Your task to perform on an android device: Go to calendar. Show me events next week Image 0: 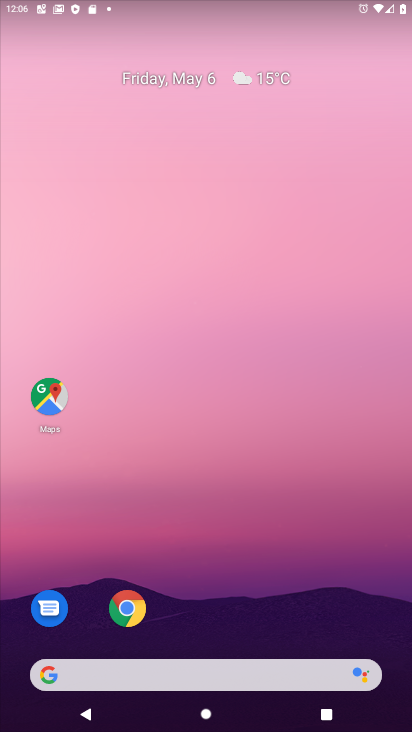
Step 0: drag from (259, 624) to (262, 249)
Your task to perform on an android device: Go to calendar. Show me events next week Image 1: 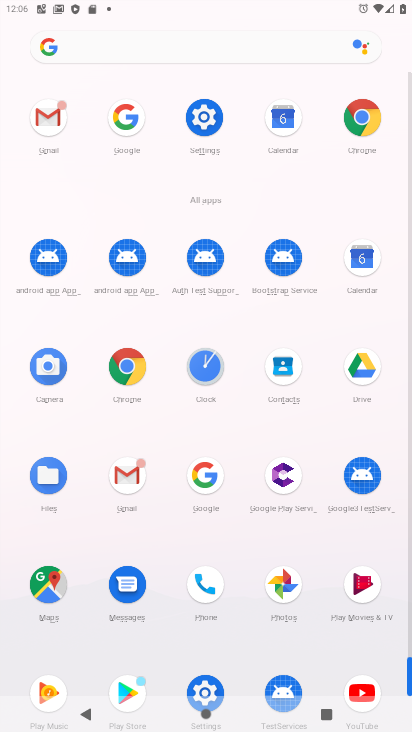
Step 1: click (354, 274)
Your task to perform on an android device: Go to calendar. Show me events next week Image 2: 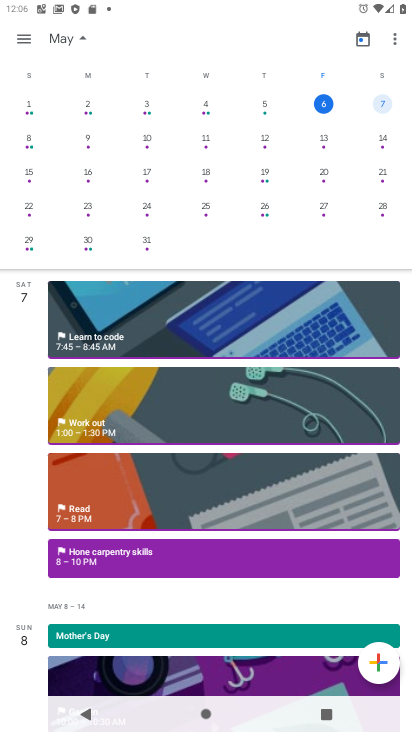
Step 2: click (29, 150)
Your task to perform on an android device: Go to calendar. Show me events next week Image 3: 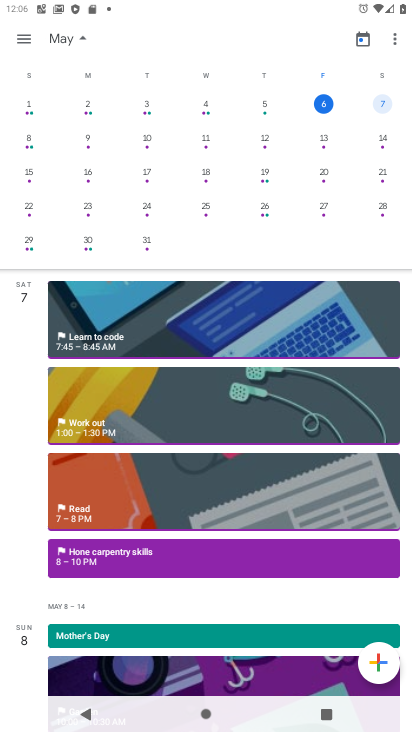
Step 3: click (87, 144)
Your task to perform on an android device: Go to calendar. Show me events next week Image 4: 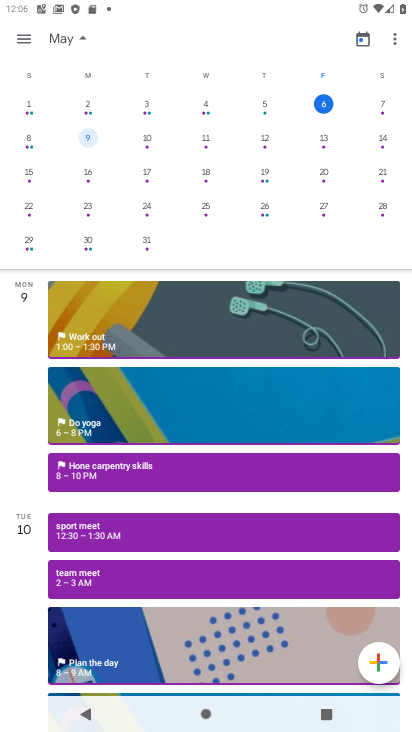
Step 4: click (146, 137)
Your task to perform on an android device: Go to calendar. Show me events next week Image 5: 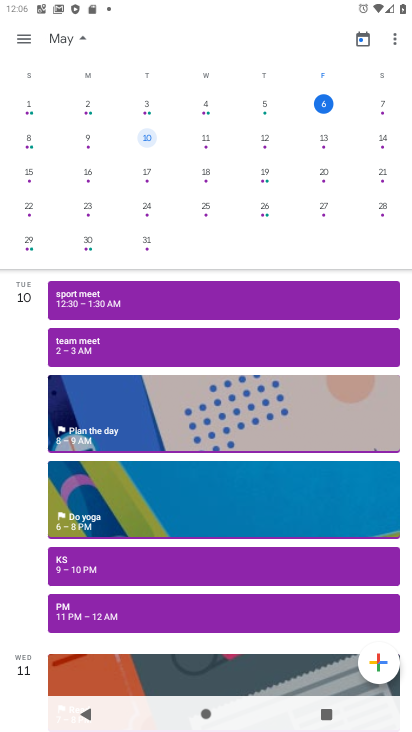
Step 5: click (210, 146)
Your task to perform on an android device: Go to calendar. Show me events next week Image 6: 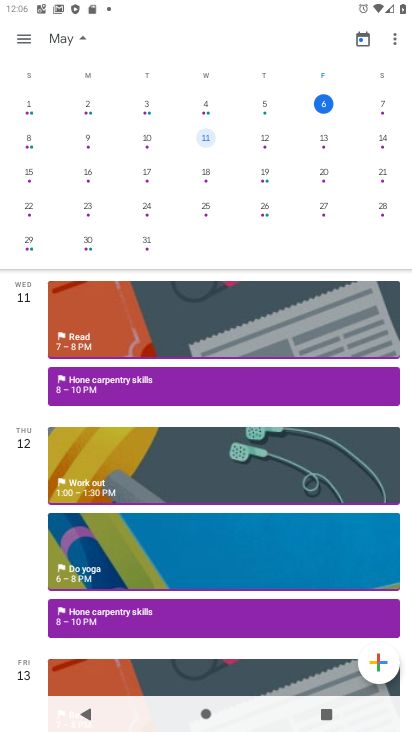
Step 6: click (260, 139)
Your task to perform on an android device: Go to calendar. Show me events next week Image 7: 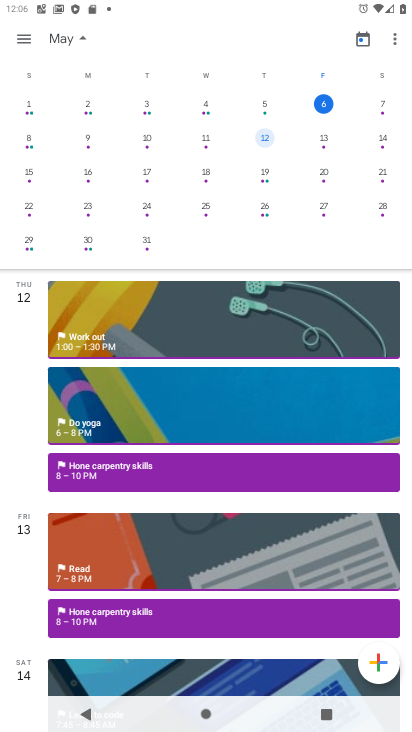
Step 7: click (321, 140)
Your task to perform on an android device: Go to calendar. Show me events next week Image 8: 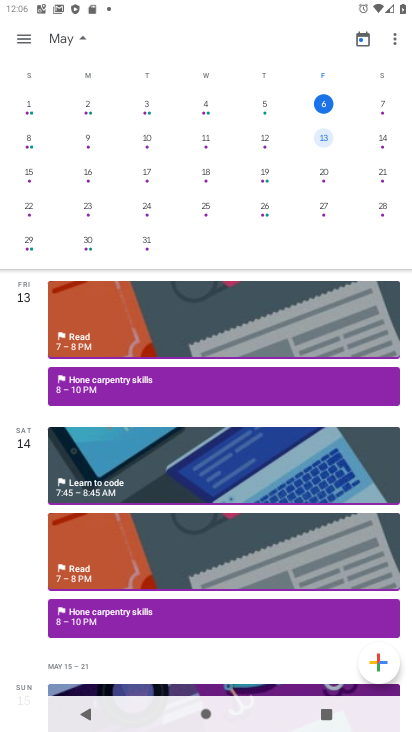
Step 8: click (382, 142)
Your task to perform on an android device: Go to calendar. Show me events next week Image 9: 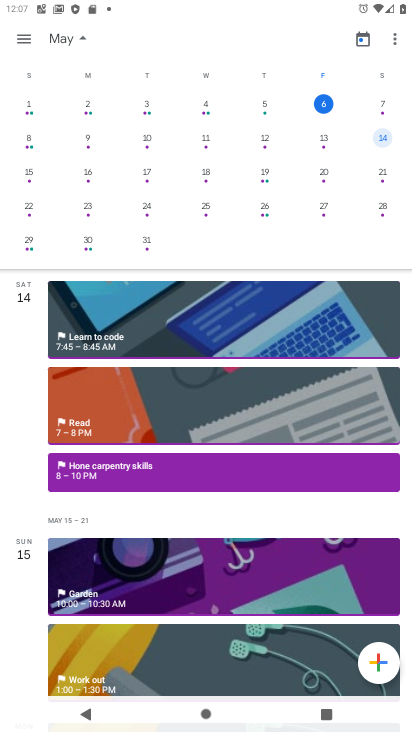
Step 9: task complete